Your task to perform on an android device: Is it going to rain this weekend? Image 0: 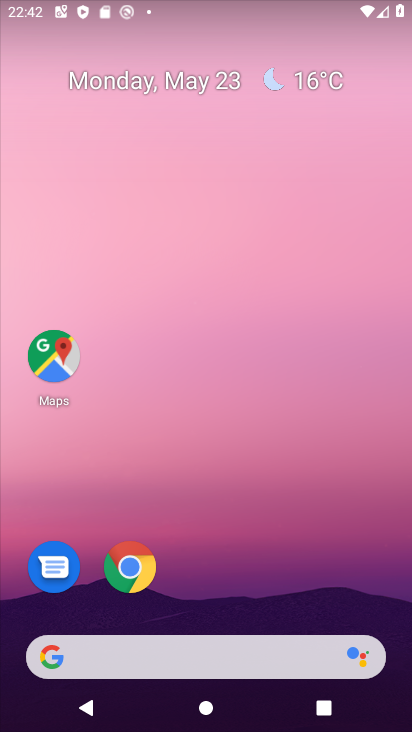
Step 0: drag from (246, 486) to (284, 79)
Your task to perform on an android device: Is it going to rain this weekend? Image 1: 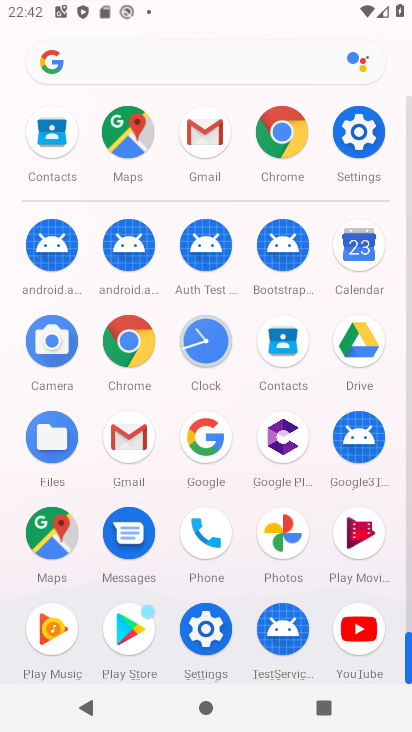
Step 1: click (364, 234)
Your task to perform on an android device: Is it going to rain this weekend? Image 2: 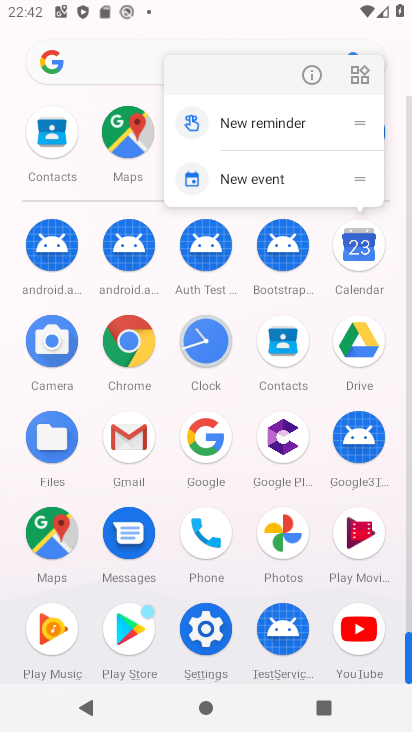
Step 2: click (307, 72)
Your task to perform on an android device: Is it going to rain this weekend? Image 3: 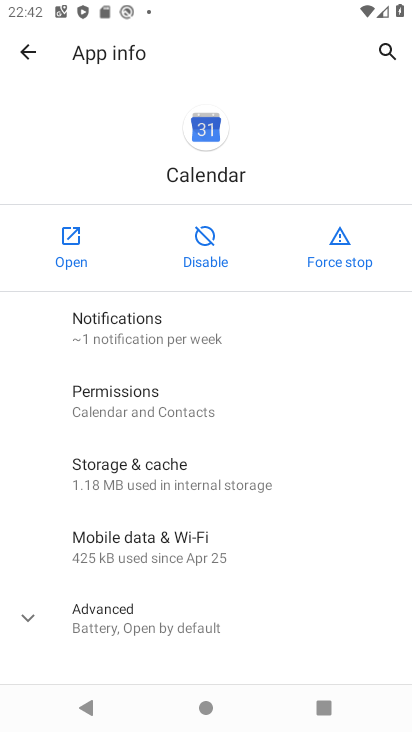
Step 3: press home button
Your task to perform on an android device: Is it going to rain this weekend? Image 4: 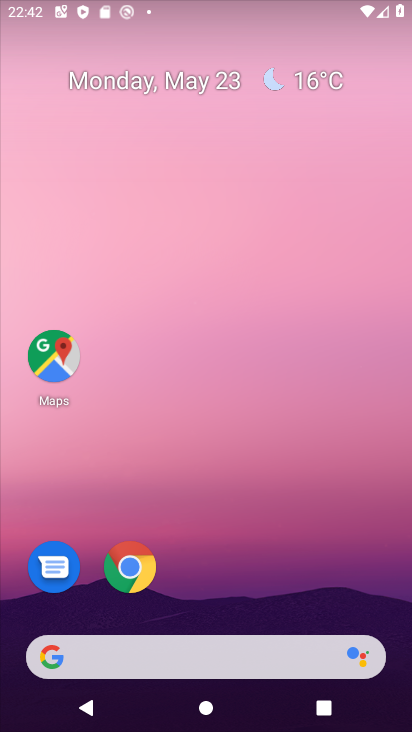
Step 4: drag from (225, 566) to (296, 44)
Your task to perform on an android device: Is it going to rain this weekend? Image 5: 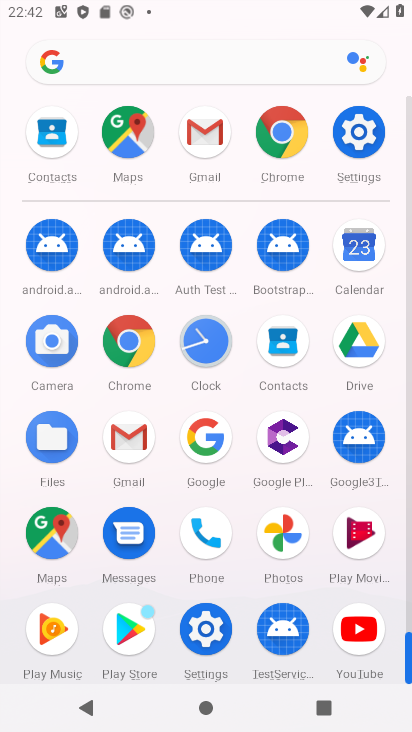
Step 5: click (159, 61)
Your task to perform on an android device: Is it going to rain this weekend? Image 6: 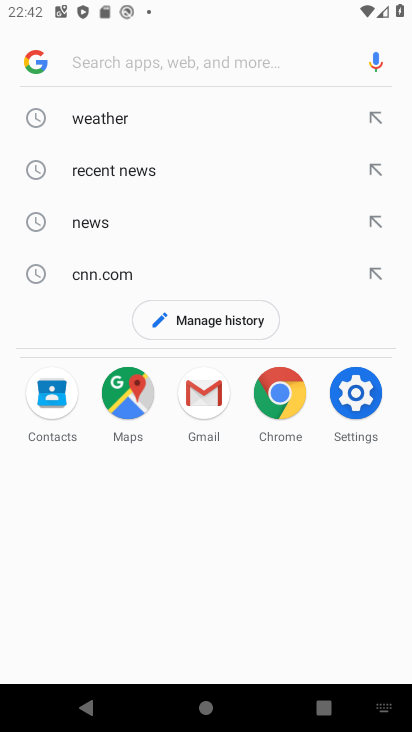
Step 6: type "rain this weekend"
Your task to perform on an android device: Is it going to rain this weekend? Image 7: 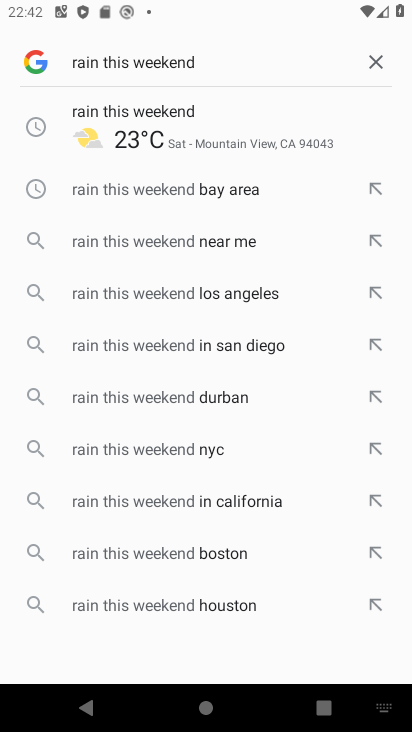
Step 7: click (110, 116)
Your task to perform on an android device: Is it going to rain this weekend? Image 8: 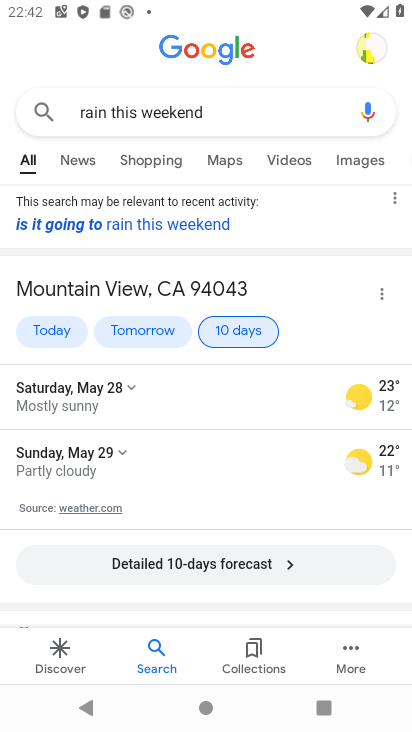
Step 8: task complete